Your task to perform on an android device: What's the weather? Image 0: 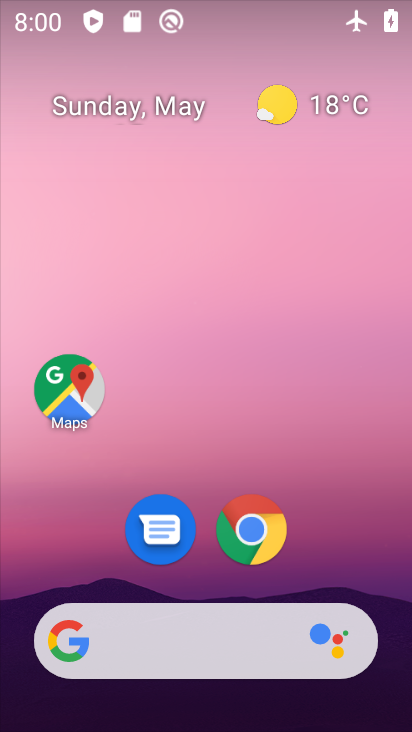
Step 0: click (344, 113)
Your task to perform on an android device: What's the weather? Image 1: 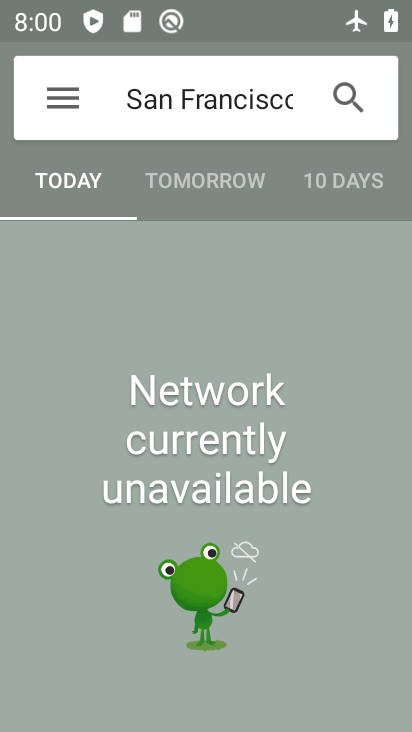
Step 1: task complete